Your task to perform on an android device: Show me popular videos on Youtube Image 0: 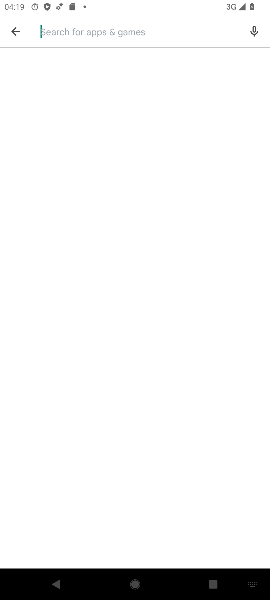
Step 0: press home button
Your task to perform on an android device: Show me popular videos on Youtube Image 1: 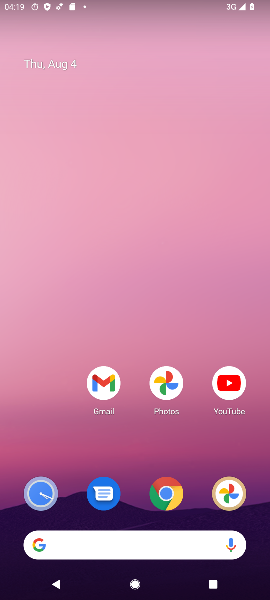
Step 1: click (220, 378)
Your task to perform on an android device: Show me popular videos on Youtube Image 2: 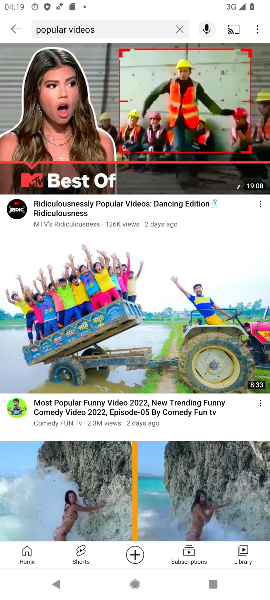
Step 2: click (175, 30)
Your task to perform on an android device: Show me popular videos on Youtube Image 3: 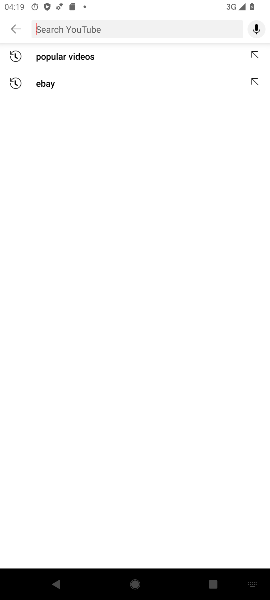
Step 3: click (83, 60)
Your task to perform on an android device: Show me popular videos on Youtube Image 4: 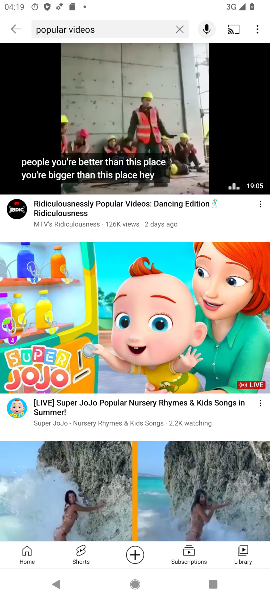
Step 4: task complete